Your task to perform on an android device: Show me productivity apps on the Play Store Image 0: 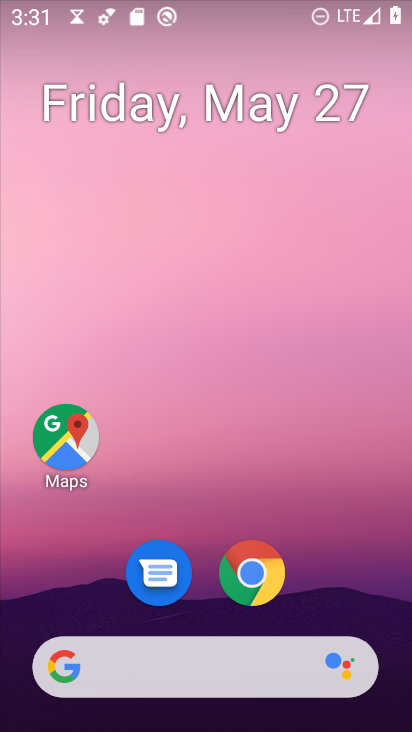
Step 0: drag from (216, 611) to (211, 26)
Your task to perform on an android device: Show me productivity apps on the Play Store Image 1: 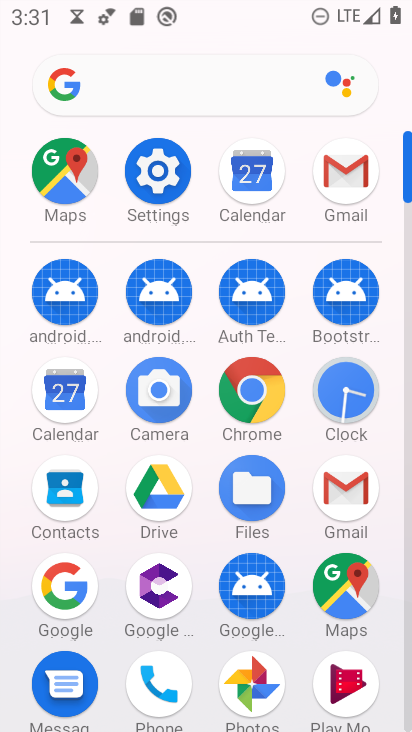
Step 1: drag from (198, 645) to (205, 144)
Your task to perform on an android device: Show me productivity apps on the Play Store Image 2: 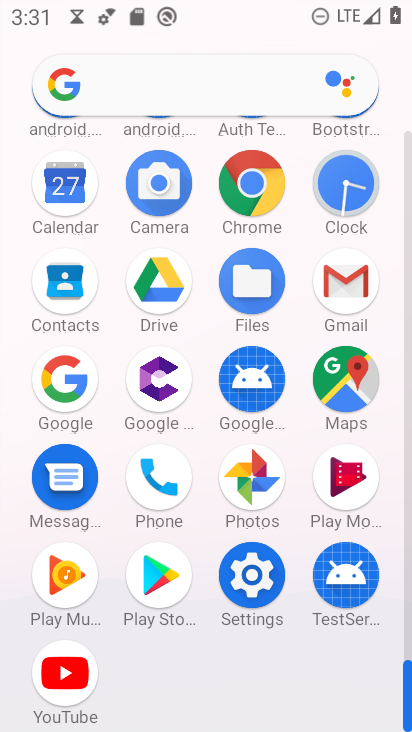
Step 2: click (157, 585)
Your task to perform on an android device: Show me productivity apps on the Play Store Image 3: 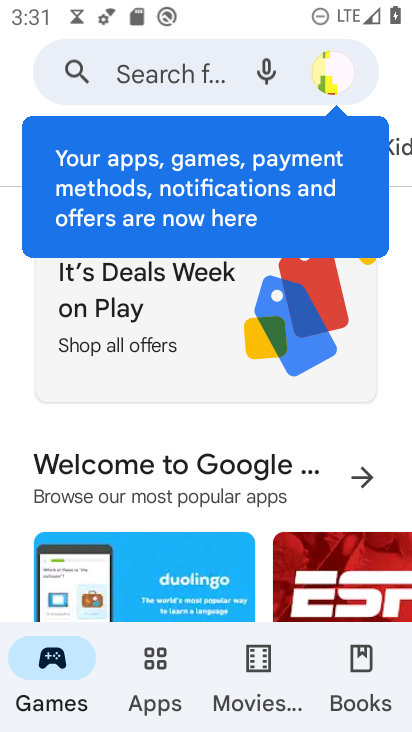
Step 3: click (154, 707)
Your task to perform on an android device: Show me productivity apps on the Play Store Image 4: 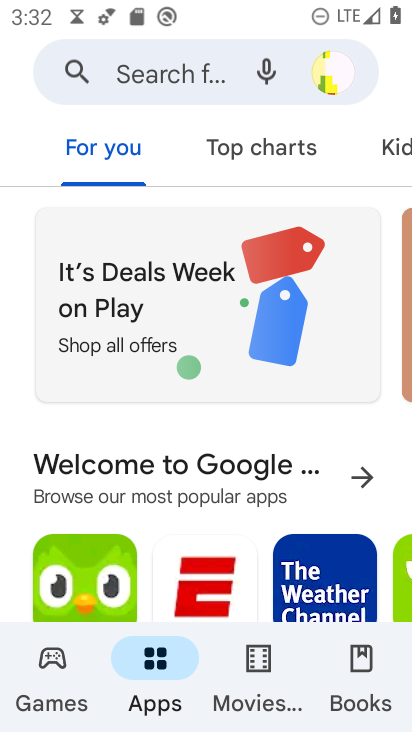
Step 4: drag from (377, 159) to (79, 152)
Your task to perform on an android device: Show me productivity apps on the Play Store Image 5: 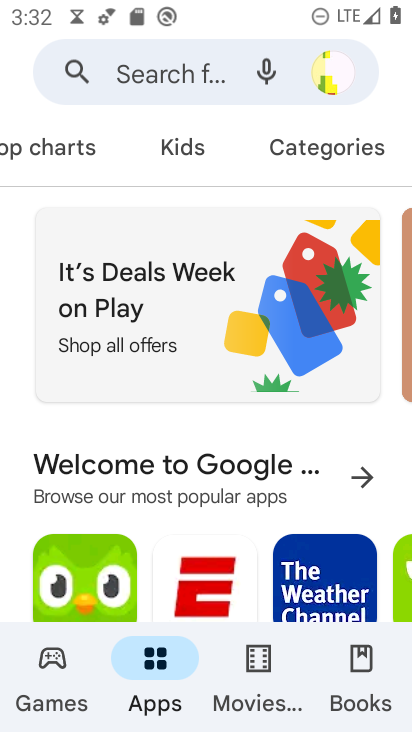
Step 5: click (335, 151)
Your task to perform on an android device: Show me productivity apps on the Play Store Image 6: 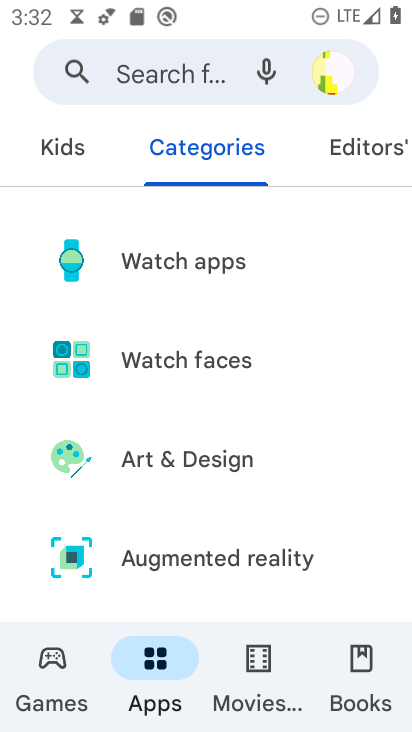
Step 6: drag from (127, 553) to (150, 72)
Your task to perform on an android device: Show me productivity apps on the Play Store Image 7: 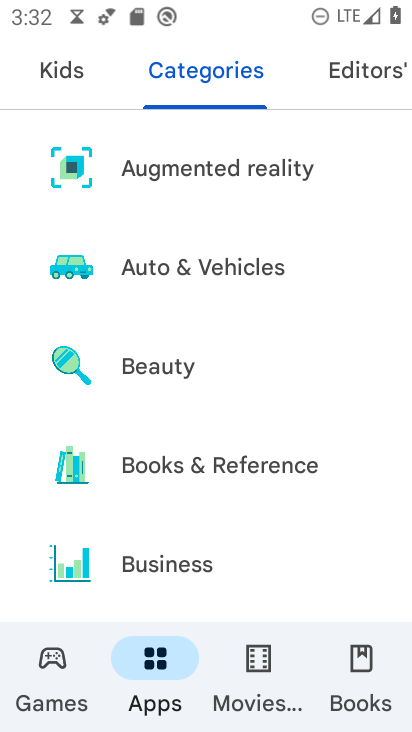
Step 7: drag from (146, 585) to (114, 0)
Your task to perform on an android device: Show me productivity apps on the Play Store Image 8: 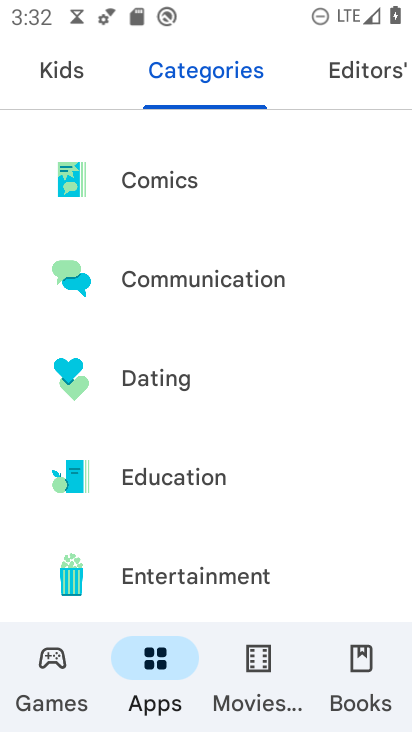
Step 8: drag from (220, 592) to (243, 27)
Your task to perform on an android device: Show me productivity apps on the Play Store Image 9: 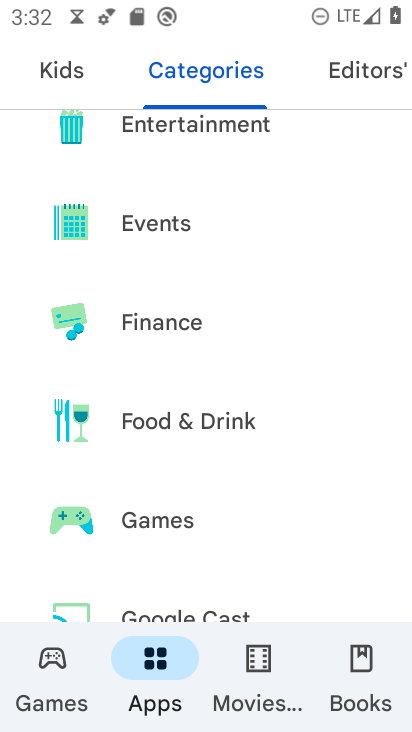
Step 9: drag from (212, 567) to (228, 179)
Your task to perform on an android device: Show me productivity apps on the Play Store Image 10: 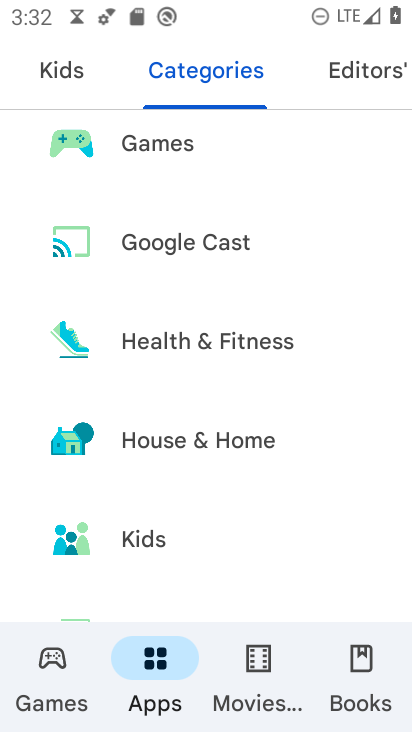
Step 10: drag from (228, 562) to (267, 75)
Your task to perform on an android device: Show me productivity apps on the Play Store Image 11: 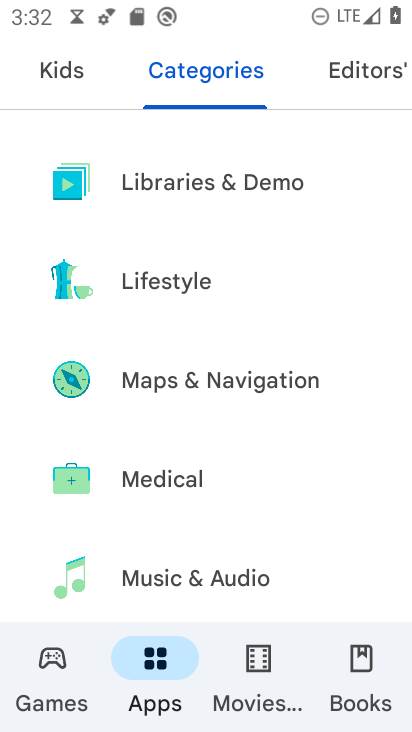
Step 11: drag from (255, 588) to (266, 87)
Your task to perform on an android device: Show me productivity apps on the Play Store Image 12: 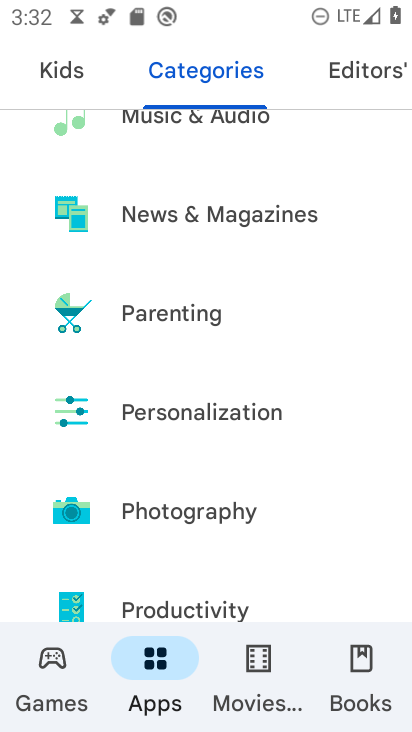
Step 12: click (202, 591)
Your task to perform on an android device: Show me productivity apps on the Play Store Image 13: 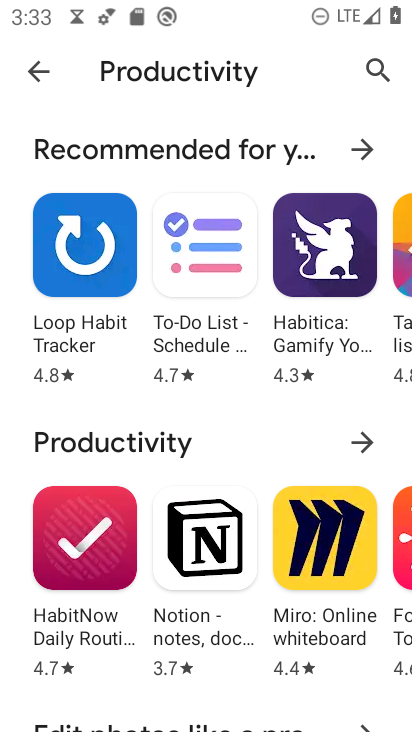
Step 13: task complete